Your task to perform on an android device: turn on the 24-hour format for clock Image 0: 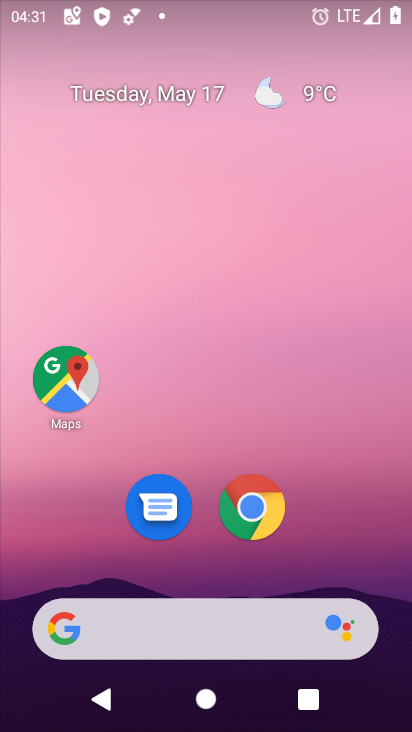
Step 0: drag from (347, 532) to (215, 74)
Your task to perform on an android device: turn on the 24-hour format for clock Image 1: 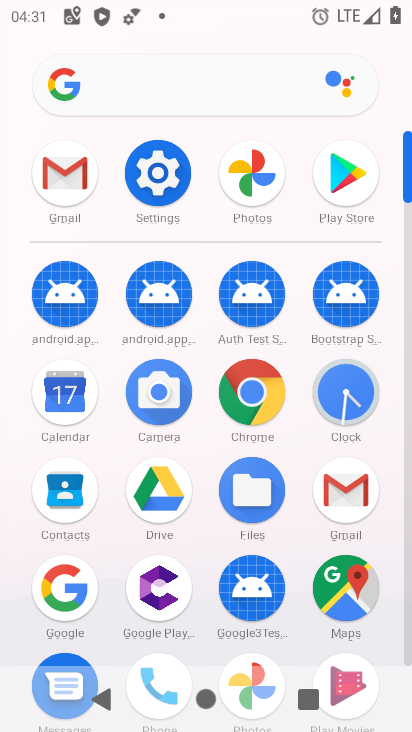
Step 1: click (342, 418)
Your task to perform on an android device: turn on the 24-hour format for clock Image 2: 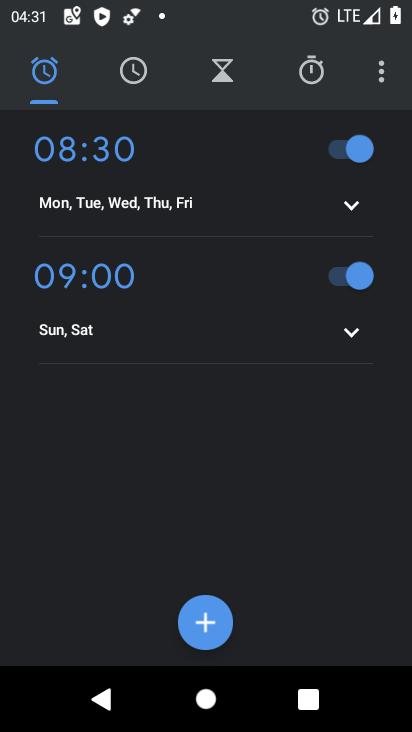
Step 2: click (382, 74)
Your task to perform on an android device: turn on the 24-hour format for clock Image 3: 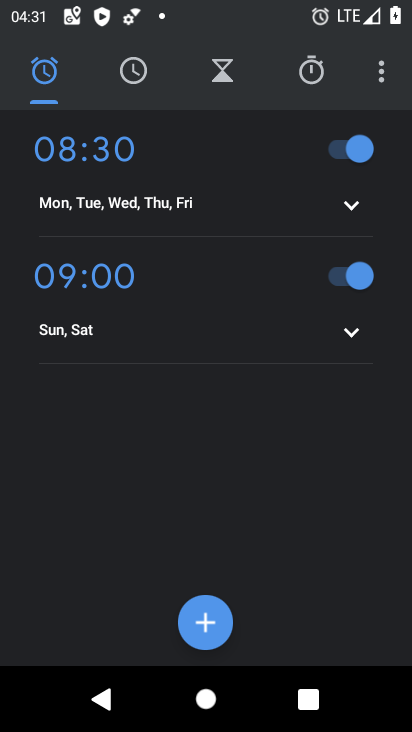
Step 3: click (382, 69)
Your task to perform on an android device: turn on the 24-hour format for clock Image 4: 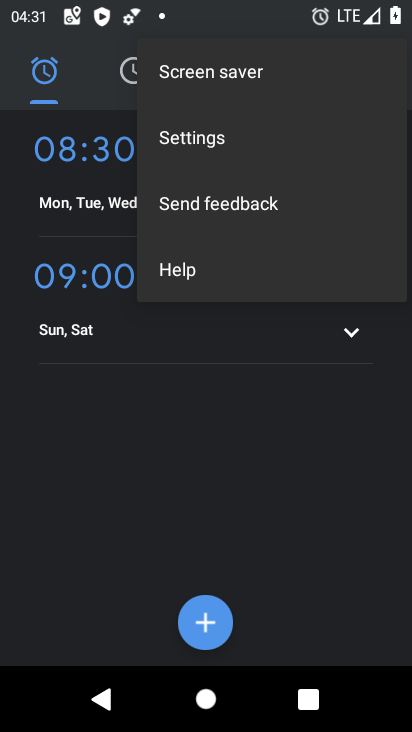
Step 4: click (232, 146)
Your task to perform on an android device: turn on the 24-hour format for clock Image 5: 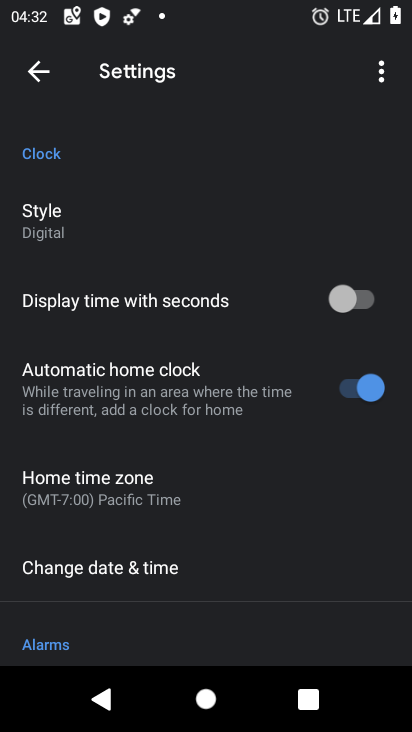
Step 5: click (199, 552)
Your task to perform on an android device: turn on the 24-hour format for clock Image 6: 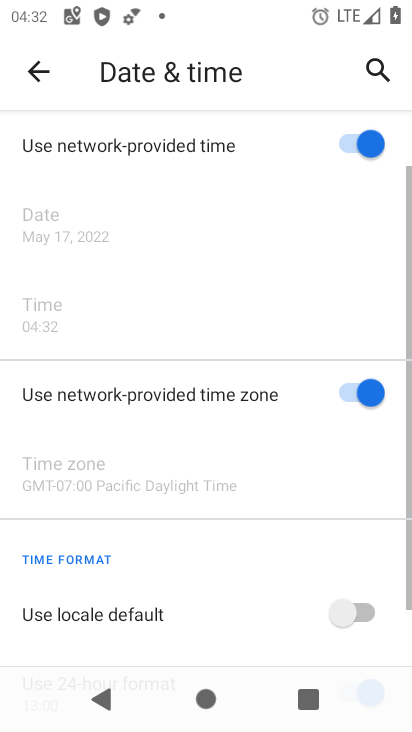
Step 6: task complete